Your task to perform on an android device: all mails in gmail Image 0: 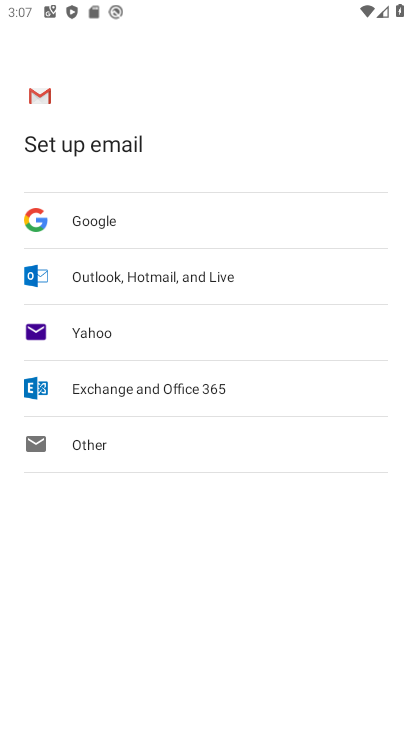
Step 0: press home button
Your task to perform on an android device: all mails in gmail Image 1: 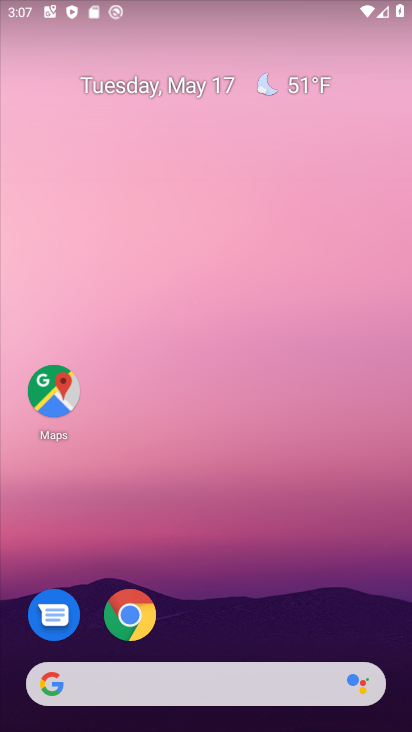
Step 1: drag from (228, 649) to (231, 87)
Your task to perform on an android device: all mails in gmail Image 2: 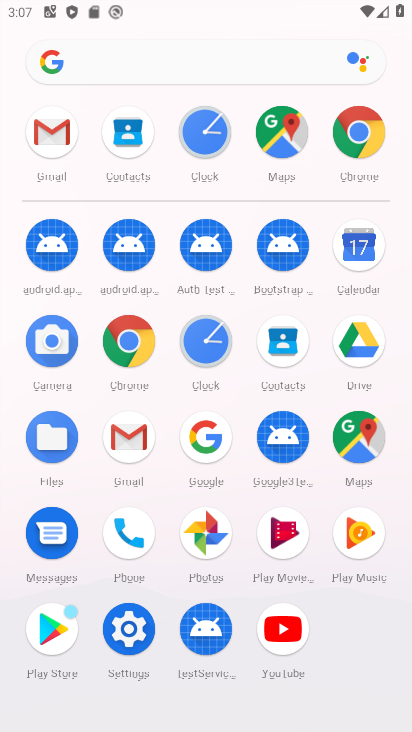
Step 2: click (55, 120)
Your task to perform on an android device: all mails in gmail Image 3: 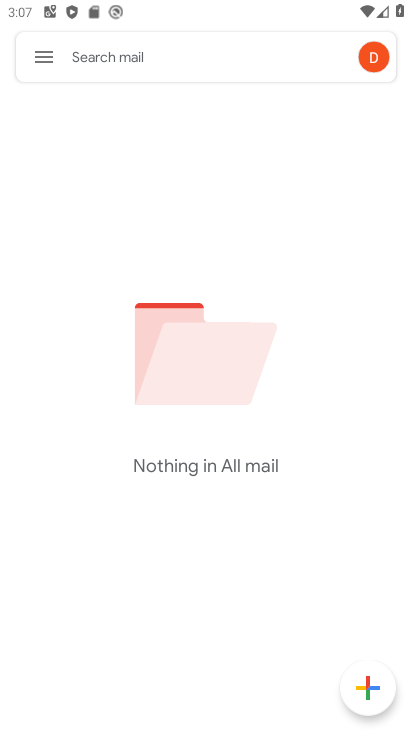
Step 3: task complete